Your task to perform on an android device: check google app version Image 0: 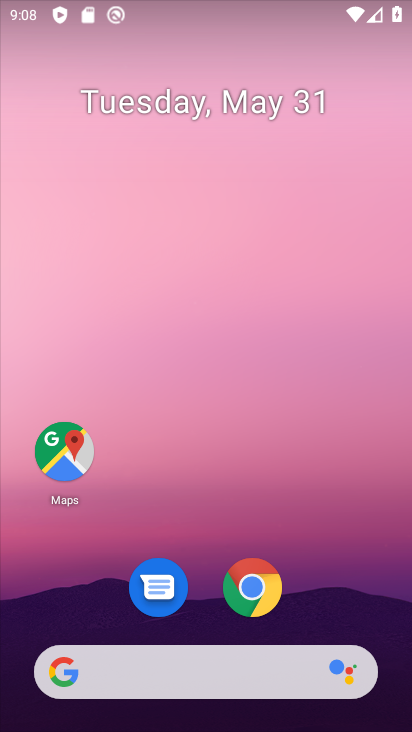
Step 0: drag from (205, 509) to (207, 91)
Your task to perform on an android device: check google app version Image 1: 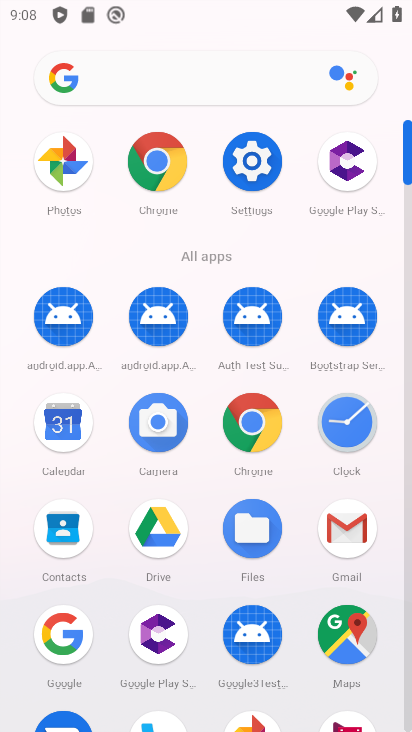
Step 1: click (59, 627)
Your task to perform on an android device: check google app version Image 2: 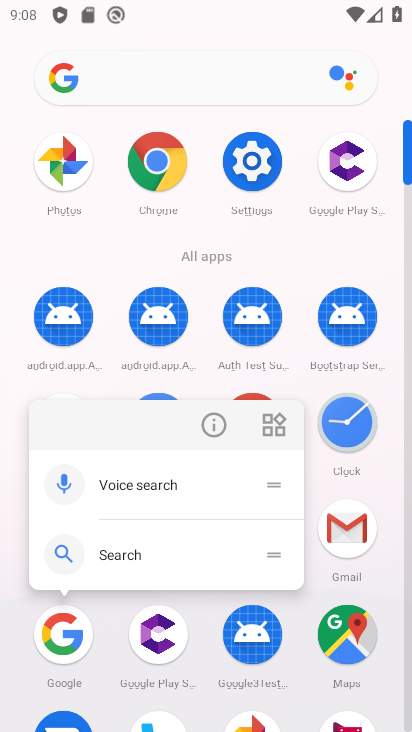
Step 2: click (214, 428)
Your task to perform on an android device: check google app version Image 3: 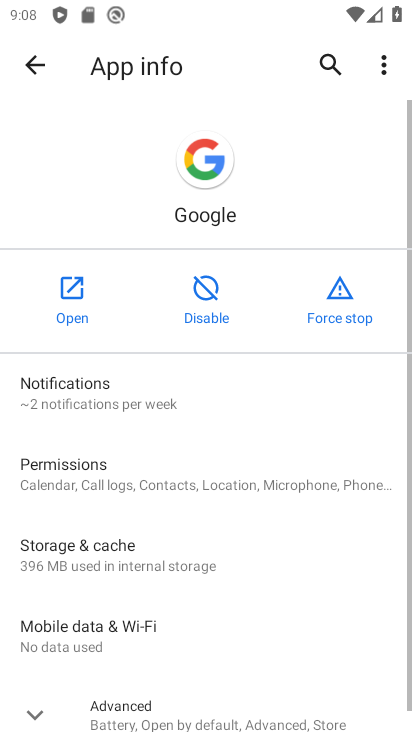
Step 3: drag from (299, 602) to (268, 8)
Your task to perform on an android device: check google app version Image 4: 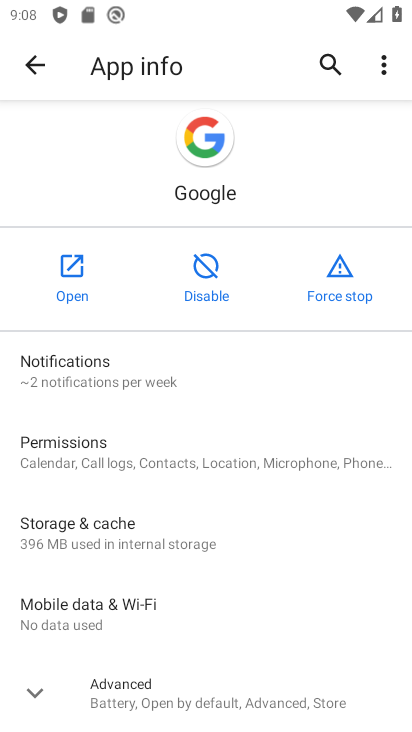
Step 4: click (105, 699)
Your task to perform on an android device: check google app version Image 5: 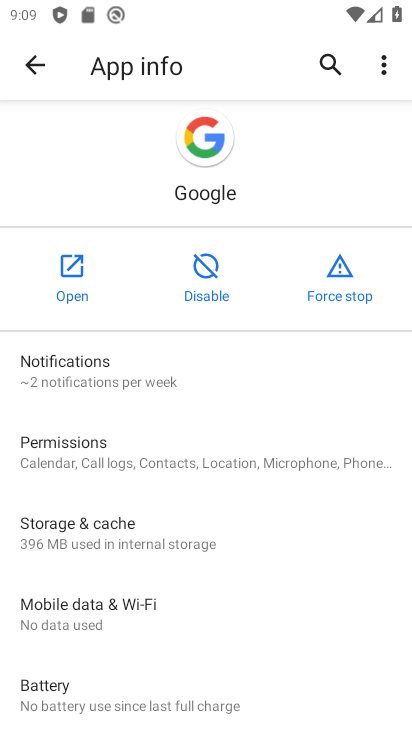
Step 5: task complete